Your task to perform on an android device: install app "Microsoft Excel" Image 0: 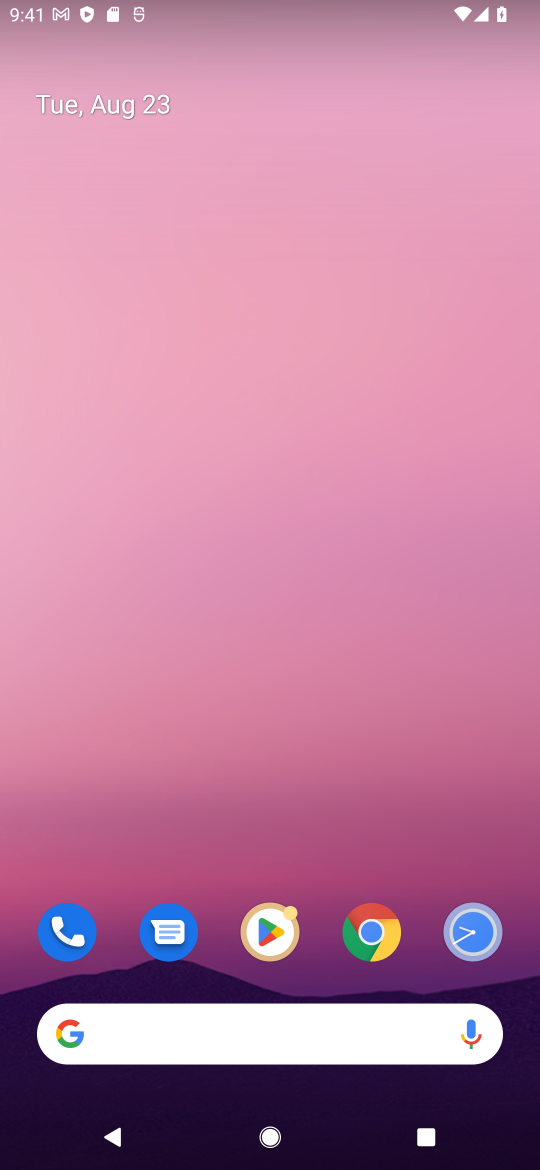
Step 0: click (272, 962)
Your task to perform on an android device: install app "Microsoft Excel" Image 1: 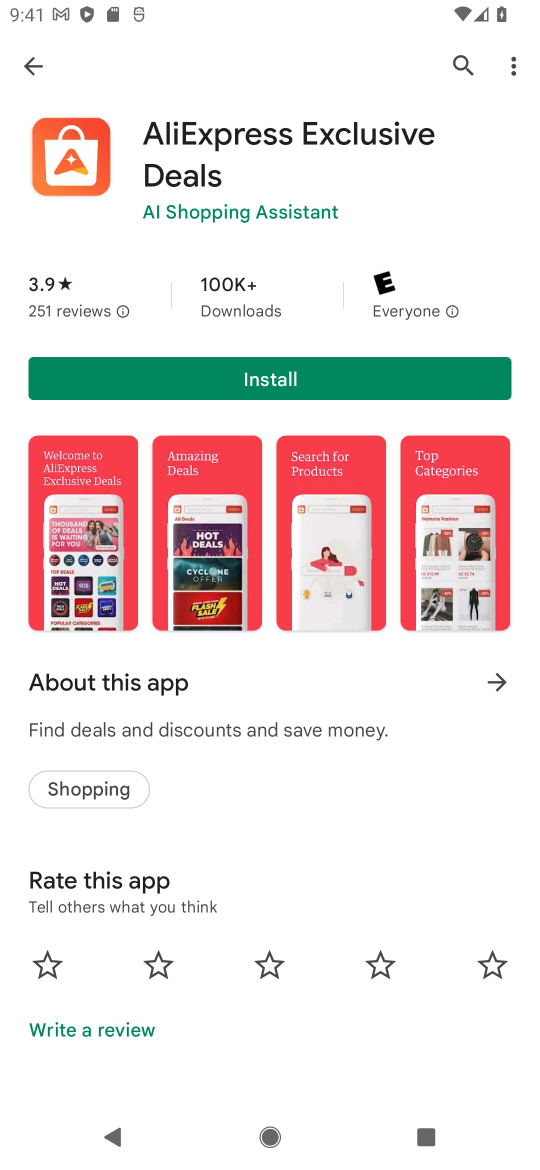
Step 1: click (459, 61)
Your task to perform on an android device: install app "Microsoft Excel" Image 2: 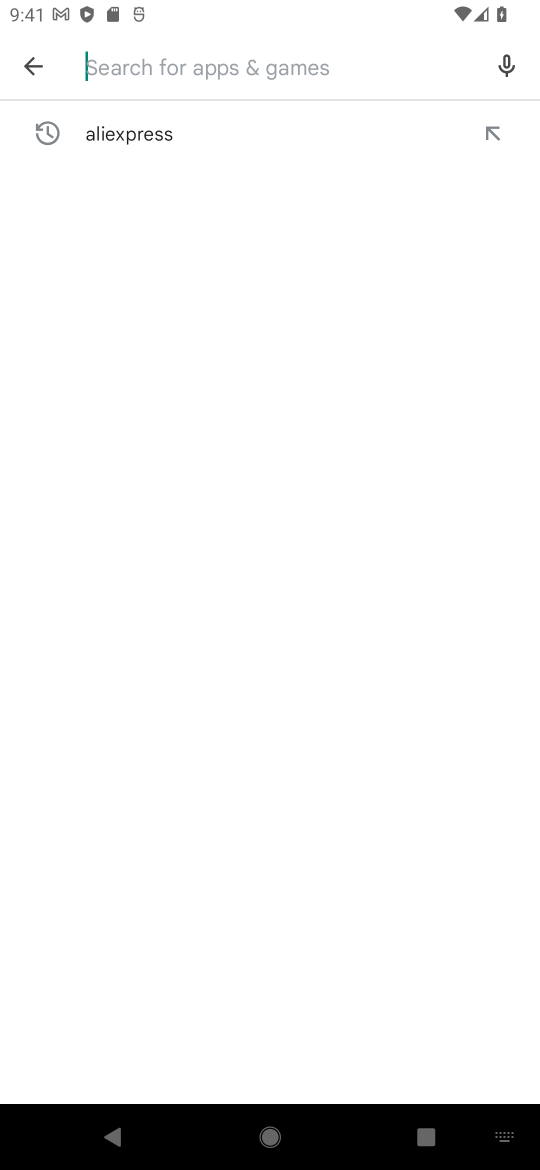
Step 2: type "microsft excel"
Your task to perform on an android device: install app "Microsoft Excel" Image 3: 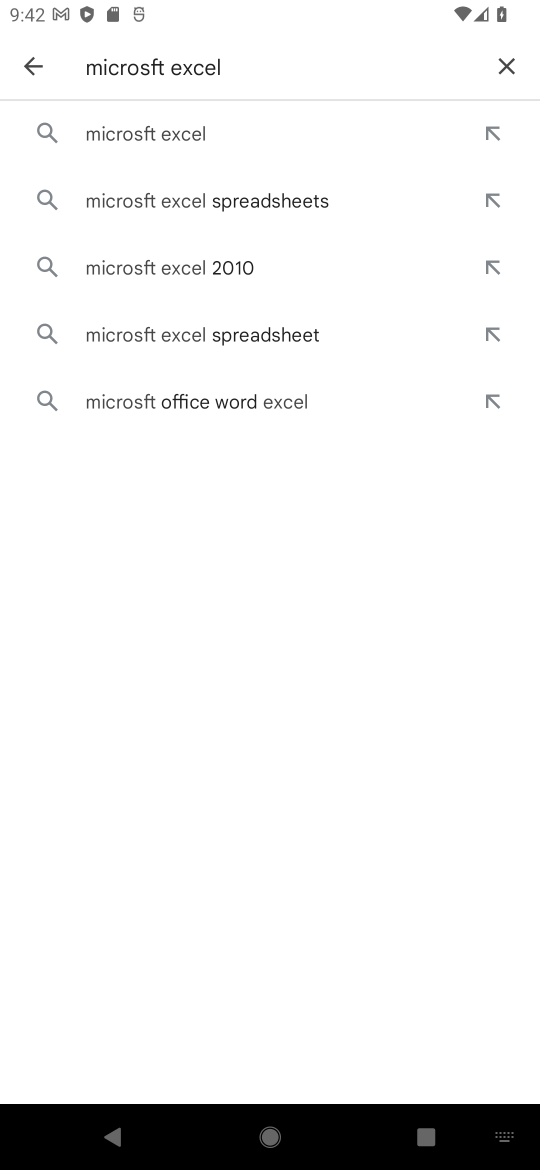
Step 3: click (172, 131)
Your task to perform on an android device: install app "Microsoft Excel" Image 4: 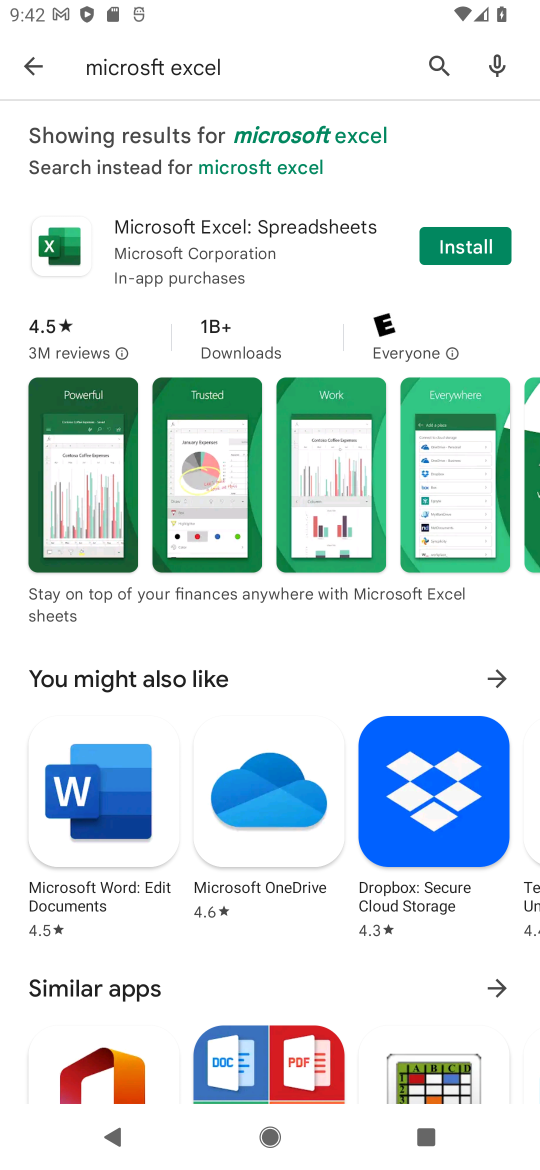
Step 4: click (480, 238)
Your task to perform on an android device: install app "Microsoft Excel" Image 5: 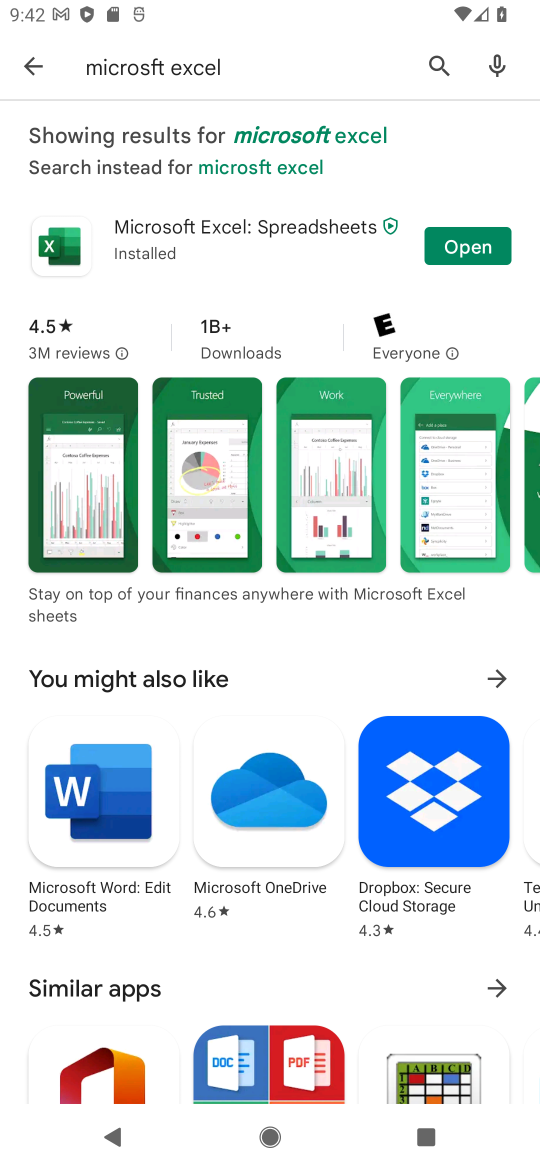
Step 5: task complete